Your task to perform on an android device: toggle airplane mode Image 0: 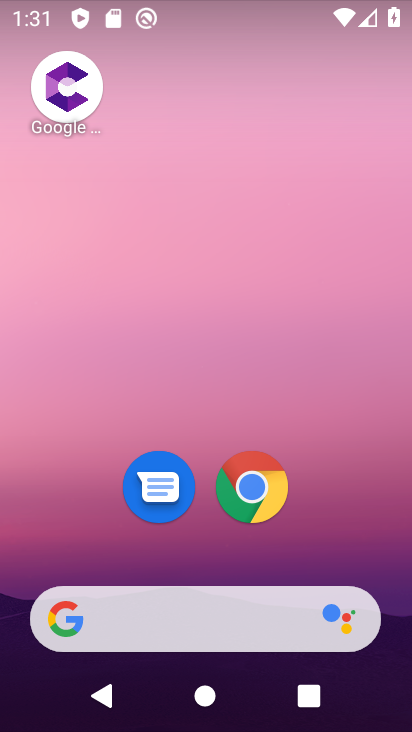
Step 0: drag from (368, 552) to (295, 92)
Your task to perform on an android device: toggle airplane mode Image 1: 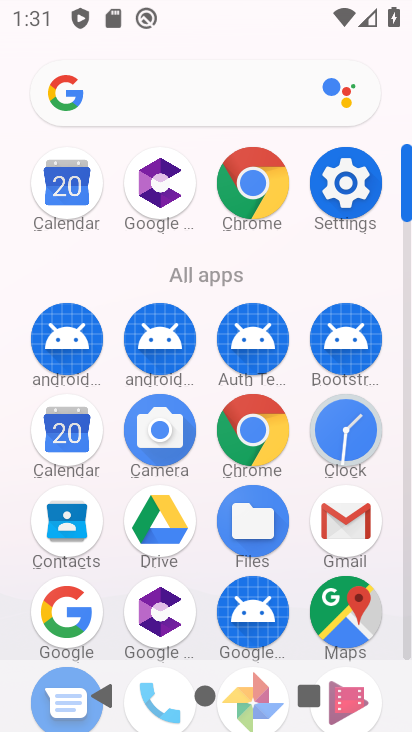
Step 1: click (360, 182)
Your task to perform on an android device: toggle airplane mode Image 2: 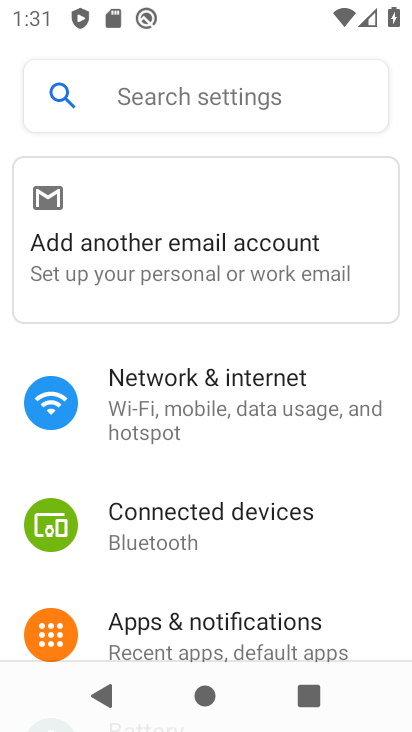
Step 2: click (175, 413)
Your task to perform on an android device: toggle airplane mode Image 3: 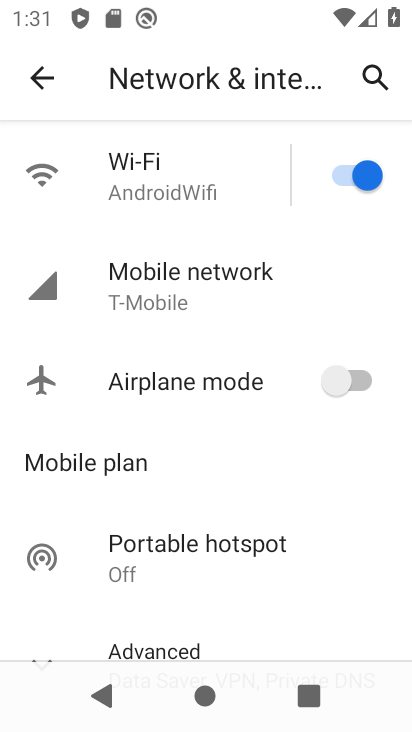
Step 3: click (356, 380)
Your task to perform on an android device: toggle airplane mode Image 4: 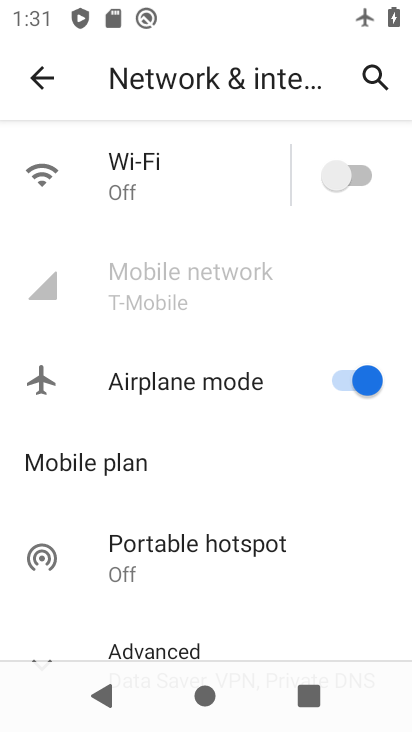
Step 4: task complete